Your task to perform on an android device: Open the map Image 0: 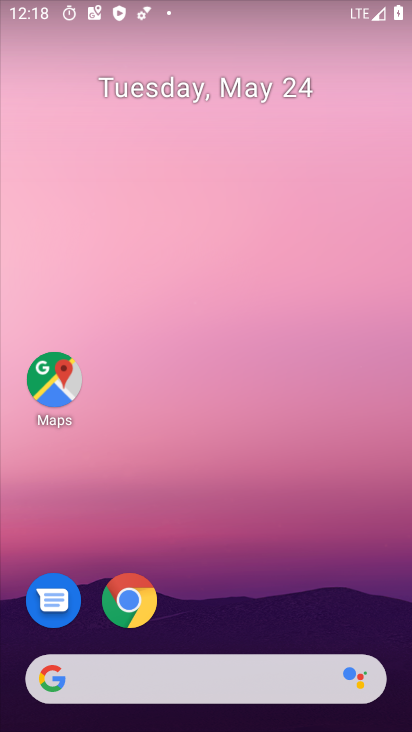
Step 0: click (249, 3)
Your task to perform on an android device: Open the map Image 1: 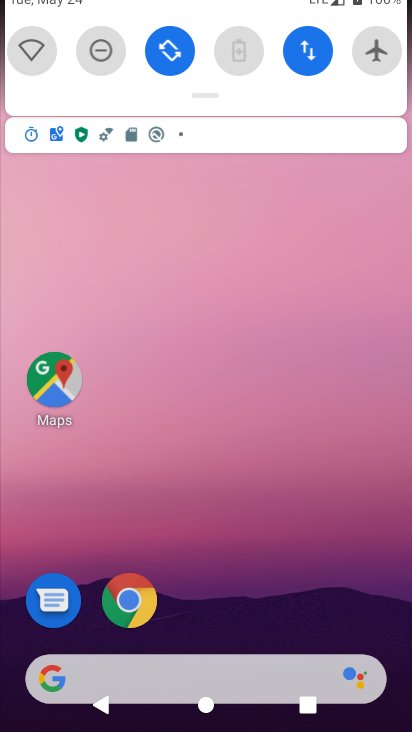
Step 1: click (50, 373)
Your task to perform on an android device: Open the map Image 2: 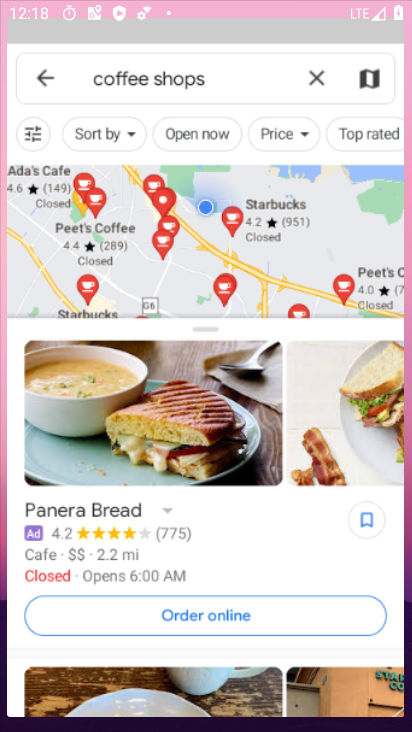
Step 2: click (50, 379)
Your task to perform on an android device: Open the map Image 3: 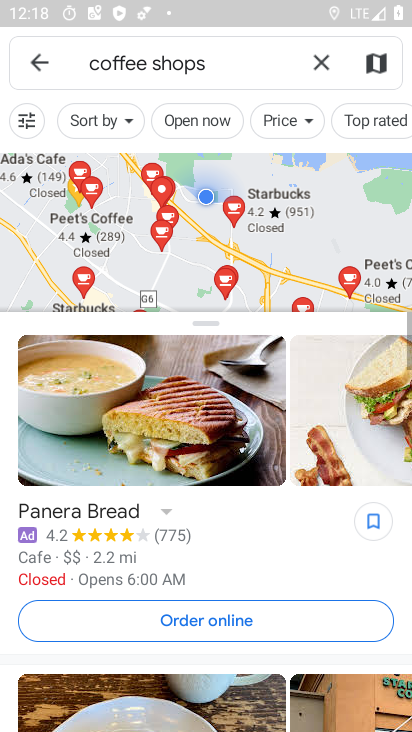
Step 3: task complete